Your task to perform on an android device: Do I have any events today? Image 0: 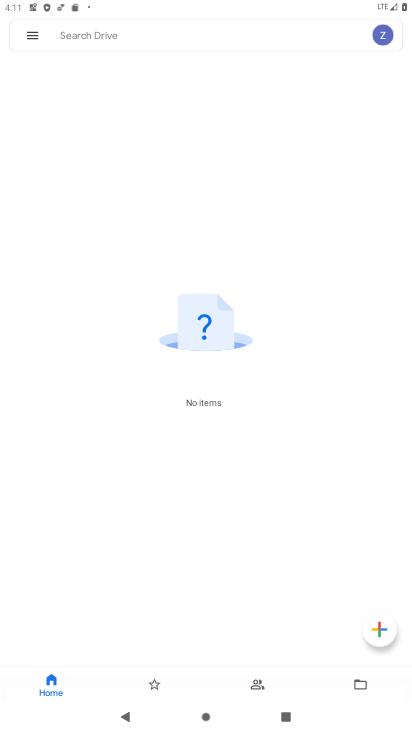
Step 0: press home button
Your task to perform on an android device: Do I have any events today? Image 1: 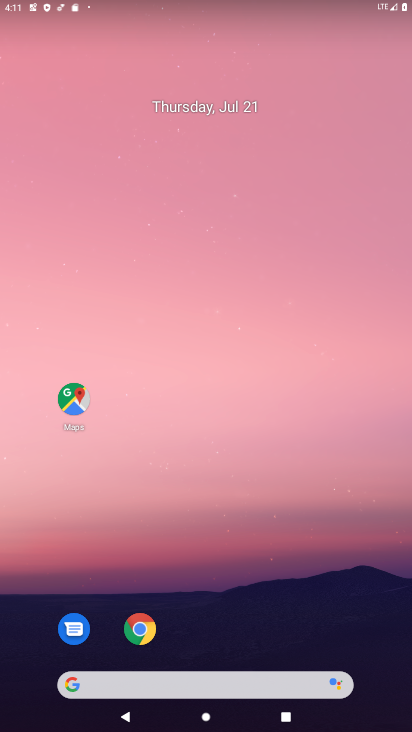
Step 1: drag from (287, 640) to (250, 339)
Your task to perform on an android device: Do I have any events today? Image 2: 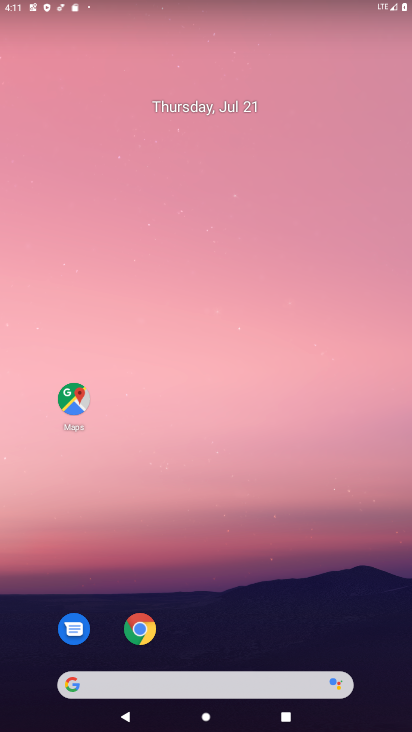
Step 2: drag from (294, 642) to (267, 169)
Your task to perform on an android device: Do I have any events today? Image 3: 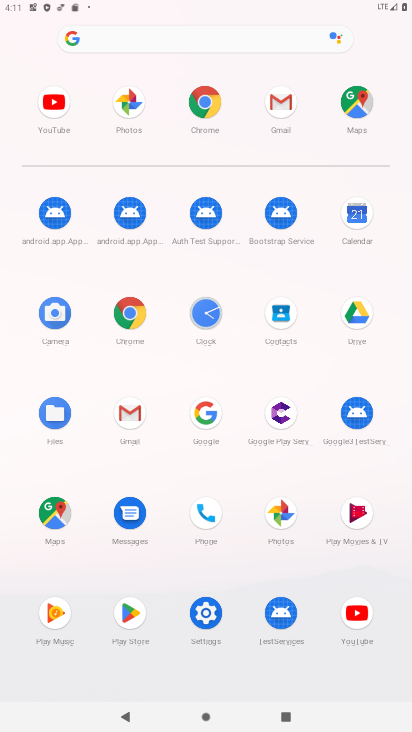
Step 3: click (368, 214)
Your task to perform on an android device: Do I have any events today? Image 4: 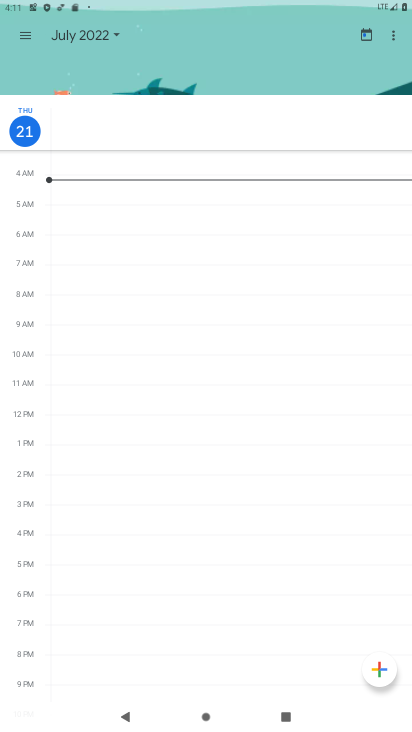
Step 4: click (17, 33)
Your task to perform on an android device: Do I have any events today? Image 5: 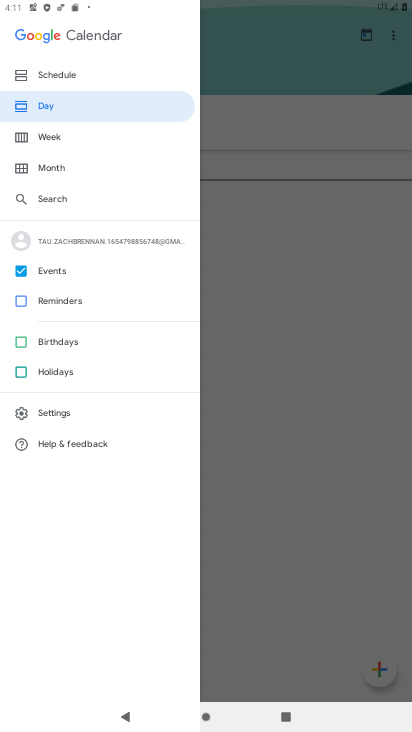
Step 5: click (70, 103)
Your task to perform on an android device: Do I have any events today? Image 6: 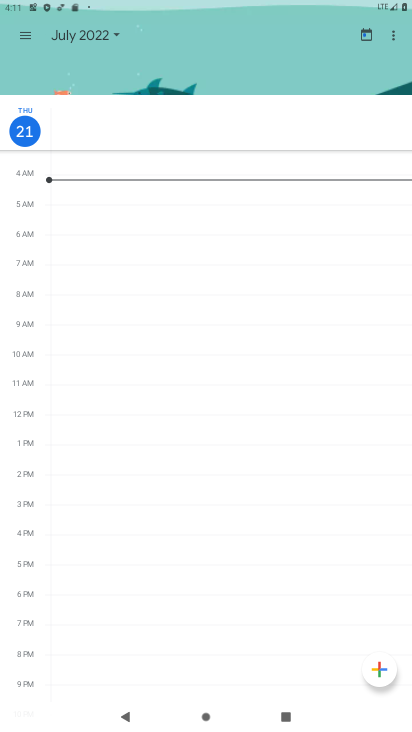
Step 6: task complete